Your task to perform on an android device: turn pop-ups off in chrome Image 0: 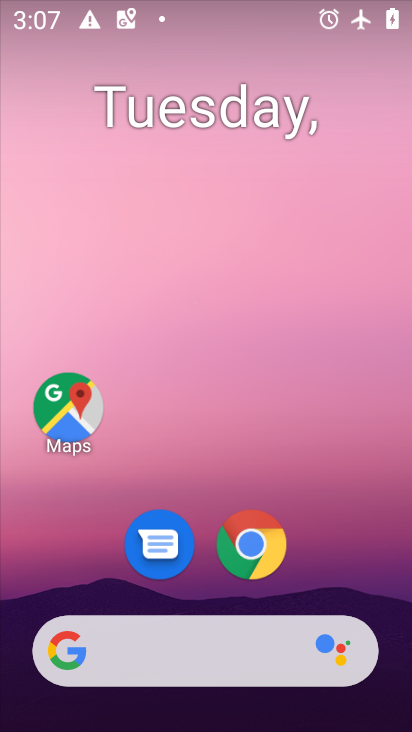
Step 0: drag from (341, 525) to (310, 12)
Your task to perform on an android device: turn pop-ups off in chrome Image 1: 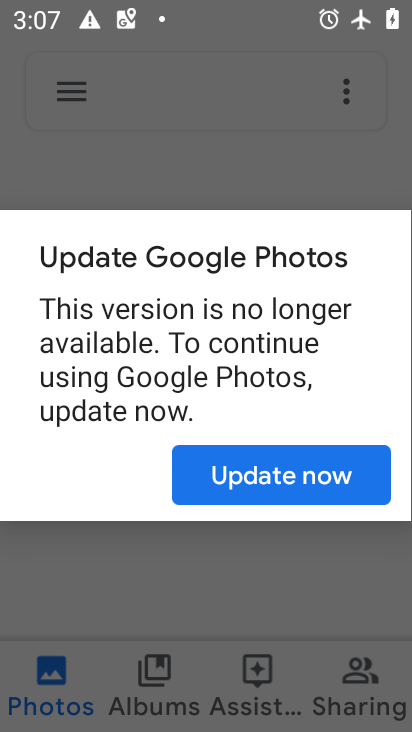
Step 1: press home button
Your task to perform on an android device: turn pop-ups off in chrome Image 2: 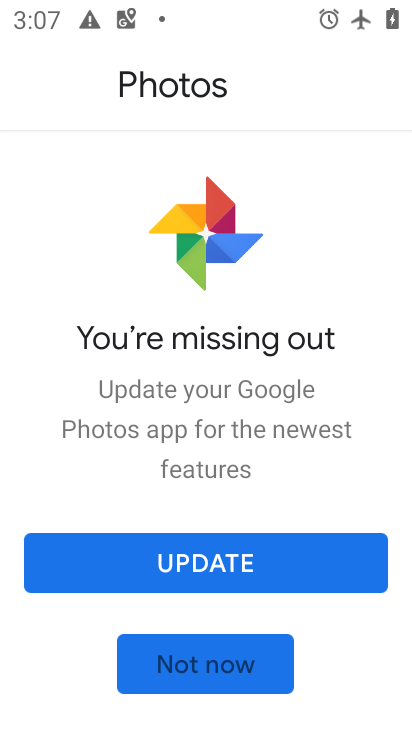
Step 2: press home button
Your task to perform on an android device: turn pop-ups off in chrome Image 3: 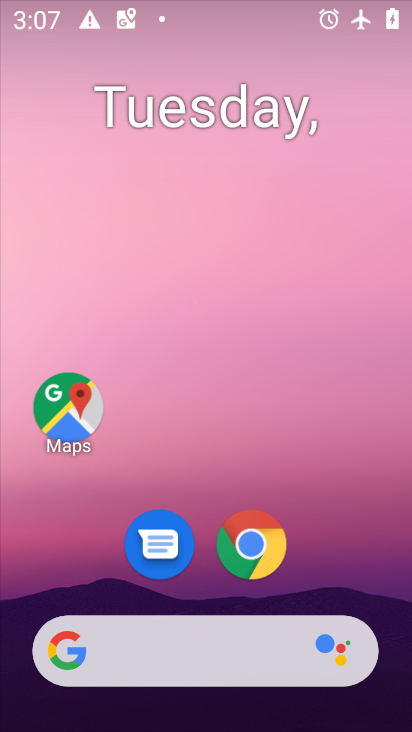
Step 3: press home button
Your task to perform on an android device: turn pop-ups off in chrome Image 4: 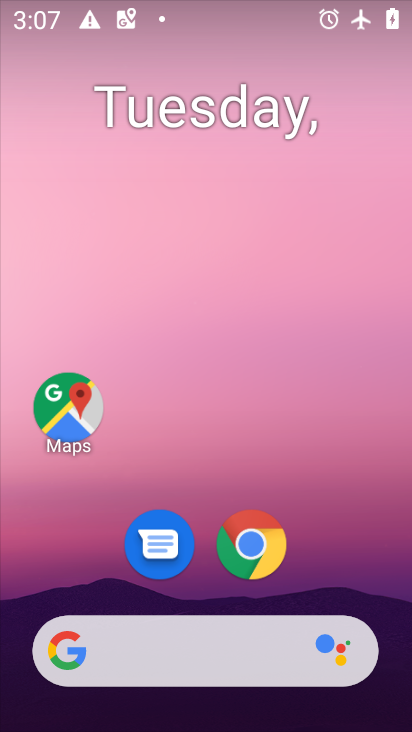
Step 4: drag from (338, 521) to (306, 38)
Your task to perform on an android device: turn pop-ups off in chrome Image 5: 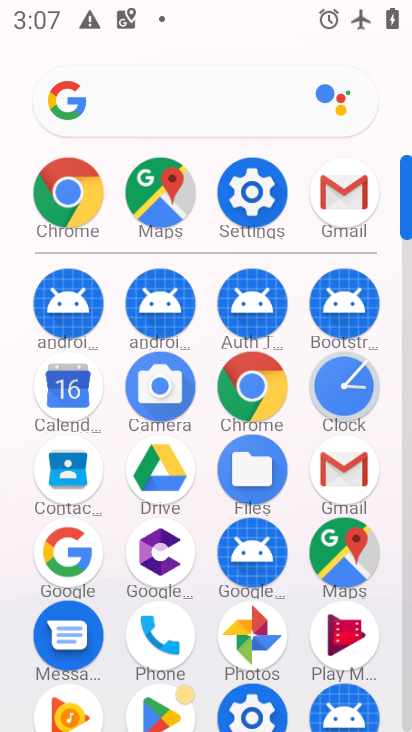
Step 5: click (248, 386)
Your task to perform on an android device: turn pop-ups off in chrome Image 6: 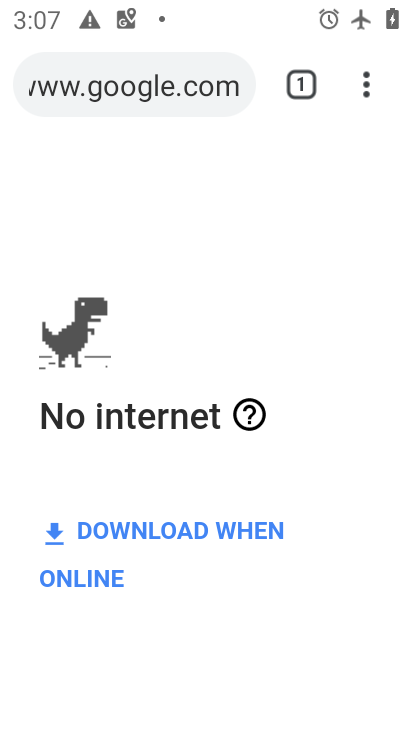
Step 6: drag from (365, 75) to (166, 591)
Your task to perform on an android device: turn pop-ups off in chrome Image 7: 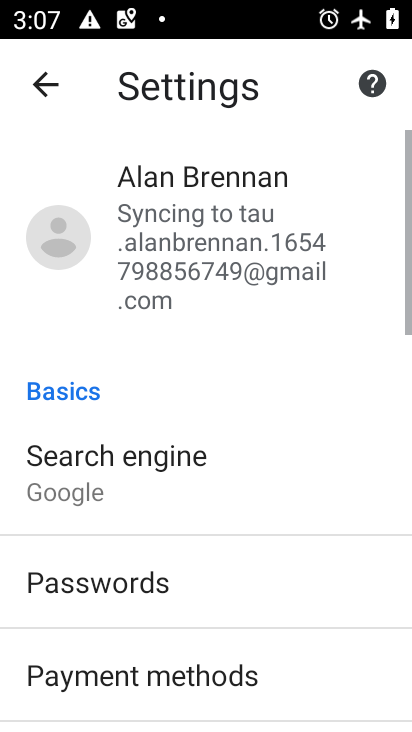
Step 7: drag from (298, 583) to (354, 25)
Your task to perform on an android device: turn pop-ups off in chrome Image 8: 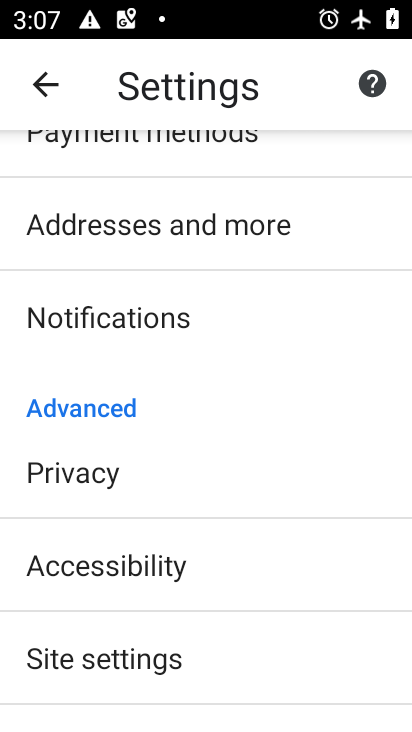
Step 8: click (145, 651)
Your task to perform on an android device: turn pop-ups off in chrome Image 9: 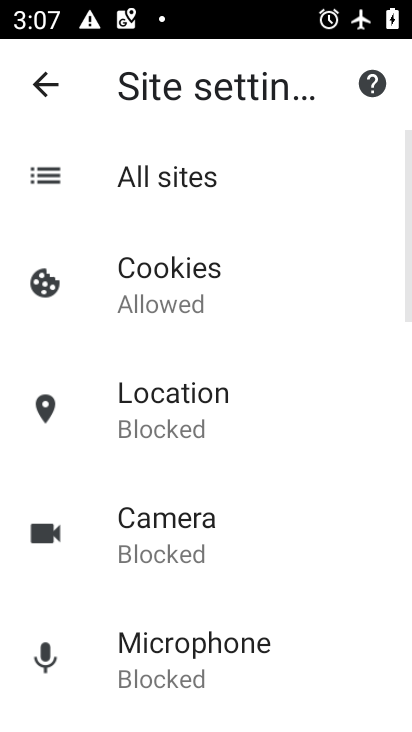
Step 9: drag from (268, 603) to (321, 136)
Your task to perform on an android device: turn pop-ups off in chrome Image 10: 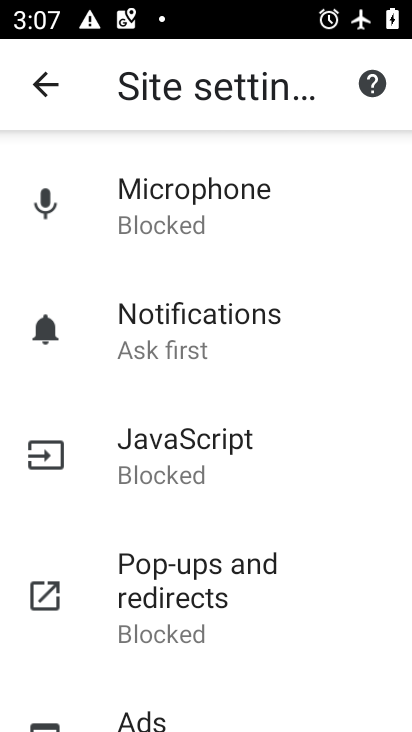
Step 10: click (229, 592)
Your task to perform on an android device: turn pop-ups off in chrome Image 11: 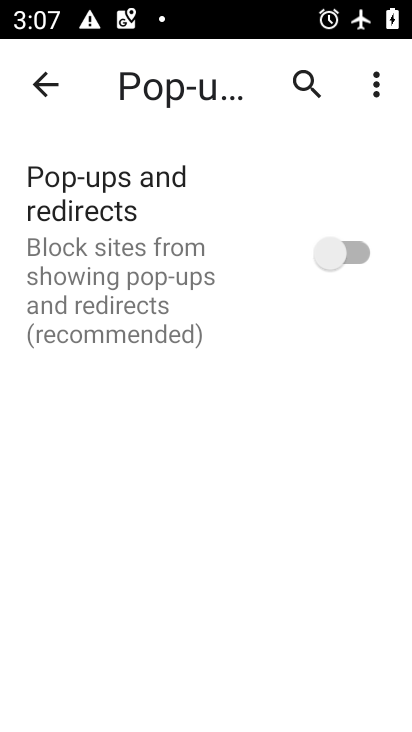
Step 11: task complete